Your task to perform on an android device: open app "Truecaller" (install if not already installed) Image 0: 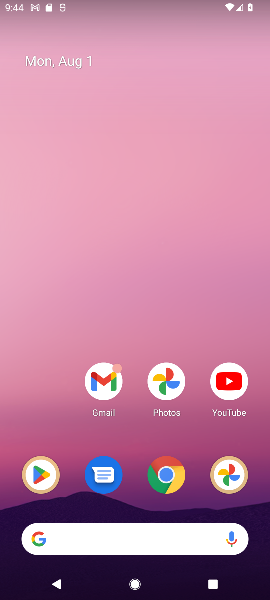
Step 0: drag from (152, 508) to (87, 24)
Your task to perform on an android device: open app "Truecaller" (install if not already installed) Image 1: 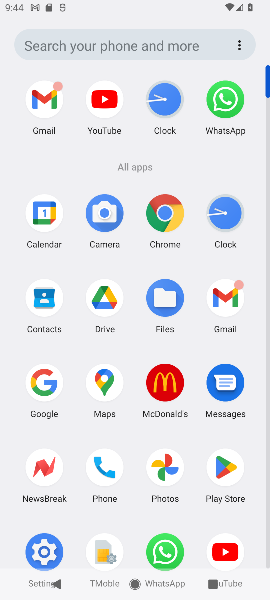
Step 1: click (223, 472)
Your task to perform on an android device: open app "Truecaller" (install if not already installed) Image 2: 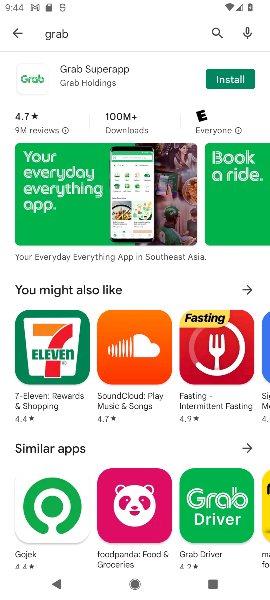
Step 2: click (15, 30)
Your task to perform on an android device: open app "Truecaller" (install if not already installed) Image 3: 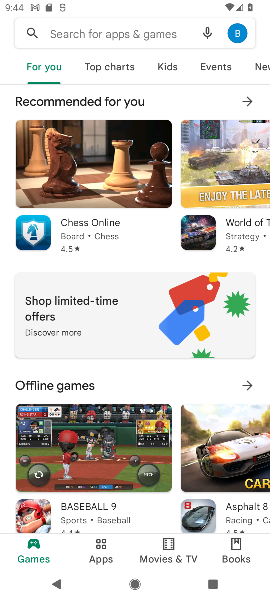
Step 3: click (50, 29)
Your task to perform on an android device: open app "Truecaller" (install if not already installed) Image 4: 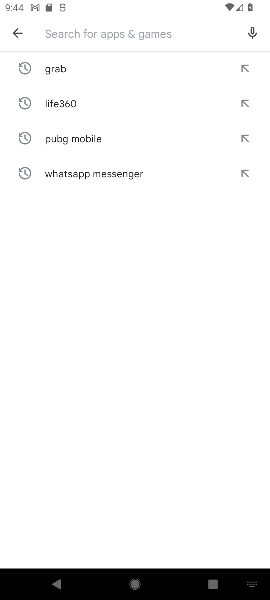
Step 4: type "Truecaller"
Your task to perform on an android device: open app "Truecaller" (install if not already installed) Image 5: 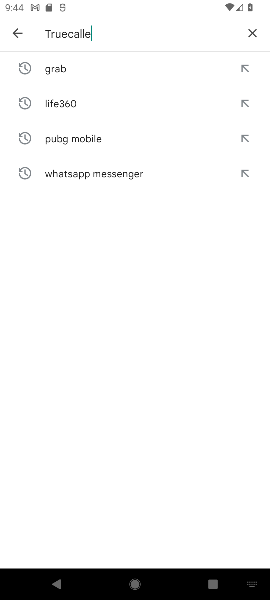
Step 5: type ""
Your task to perform on an android device: open app "Truecaller" (install if not already installed) Image 6: 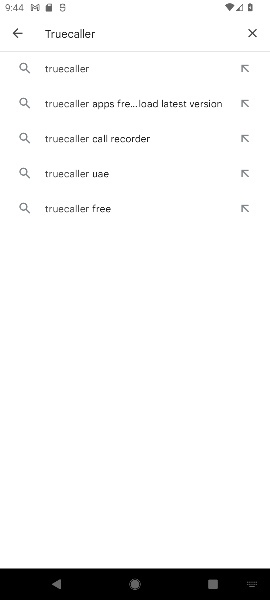
Step 6: click (65, 69)
Your task to perform on an android device: open app "Truecaller" (install if not already installed) Image 7: 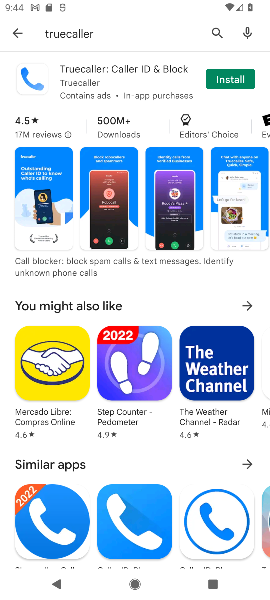
Step 7: click (208, 80)
Your task to perform on an android device: open app "Truecaller" (install if not already installed) Image 8: 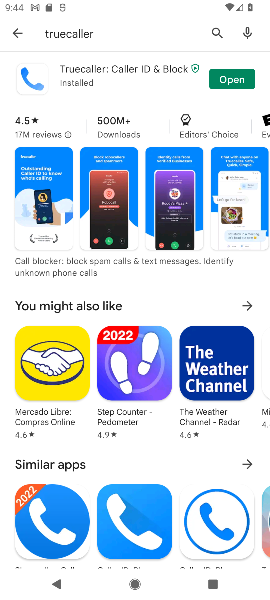
Step 8: task complete